Your task to perform on an android device: toggle notification dots Image 0: 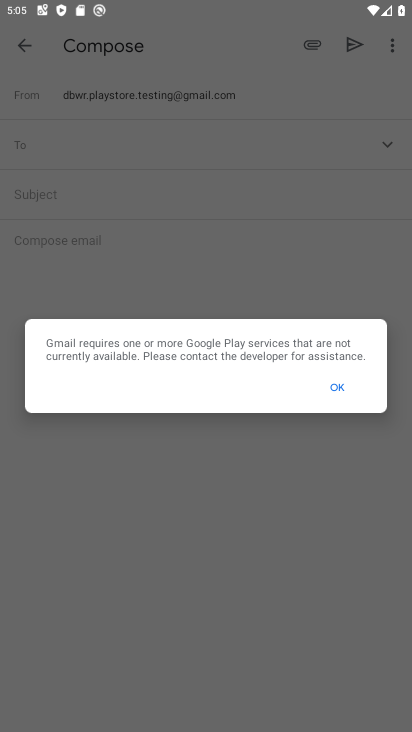
Step 0: press home button
Your task to perform on an android device: toggle notification dots Image 1: 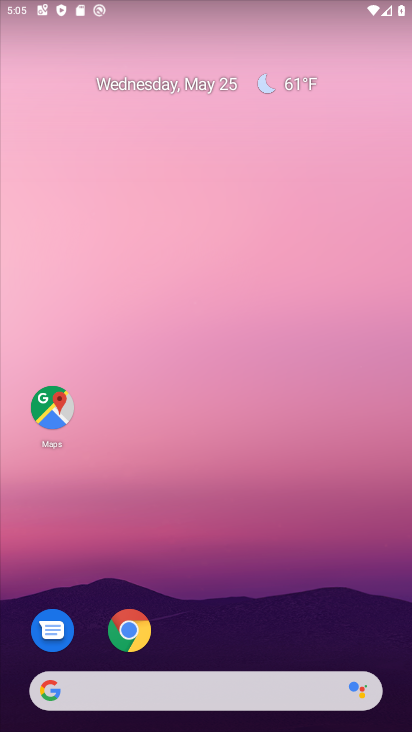
Step 1: drag from (235, 608) to (264, 37)
Your task to perform on an android device: toggle notification dots Image 2: 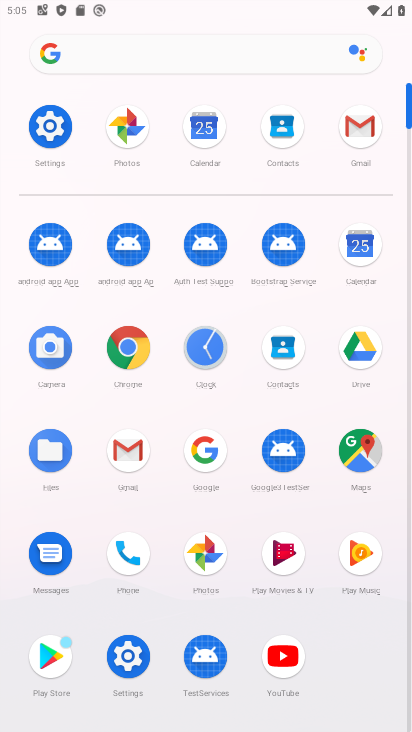
Step 2: click (54, 127)
Your task to perform on an android device: toggle notification dots Image 3: 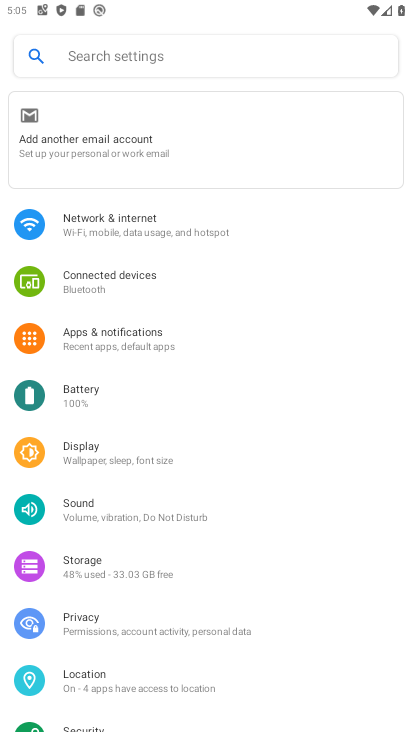
Step 3: click (118, 332)
Your task to perform on an android device: toggle notification dots Image 4: 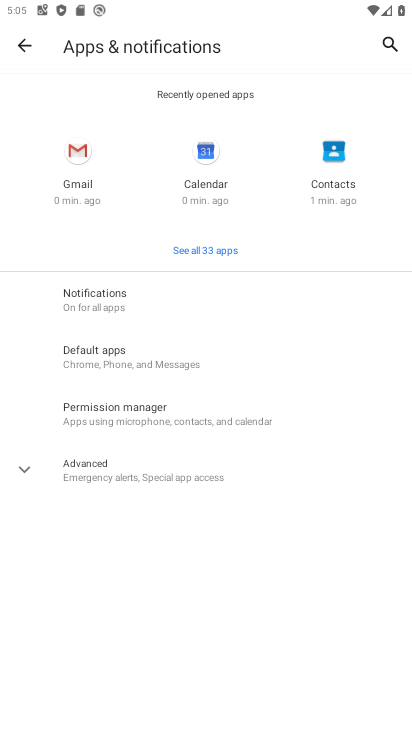
Step 4: click (111, 295)
Your task to perform on an android device: toggle notification dots Image 5: 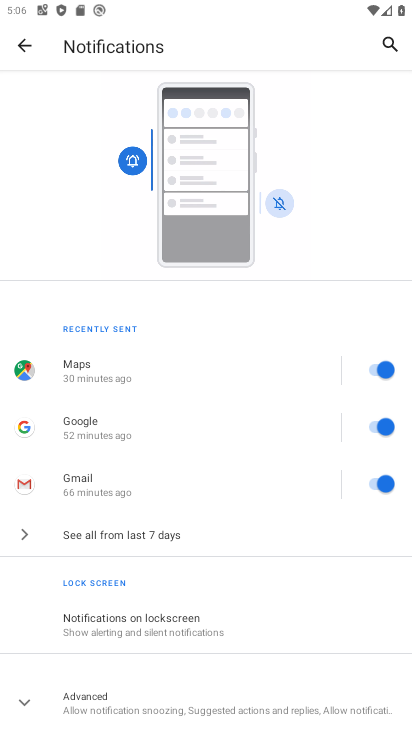
Step 5: drag from (126, 594) to (224, 132)
Your task to perform on an android device: toggle notification dots Image 6: 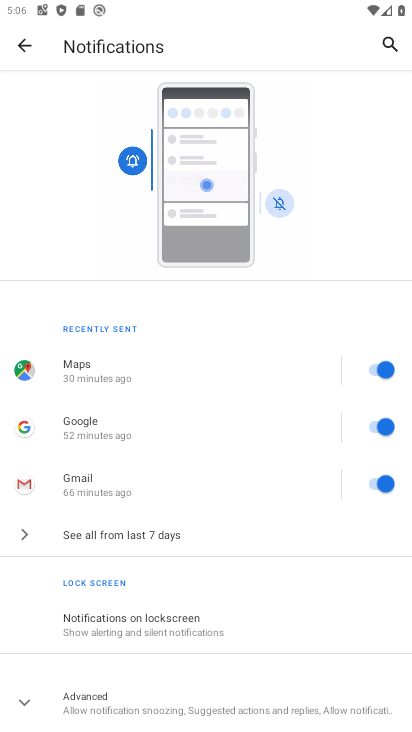
Step 6: click (133, 692)
Your task to perform on an android device: toggle notification dots Image 7: 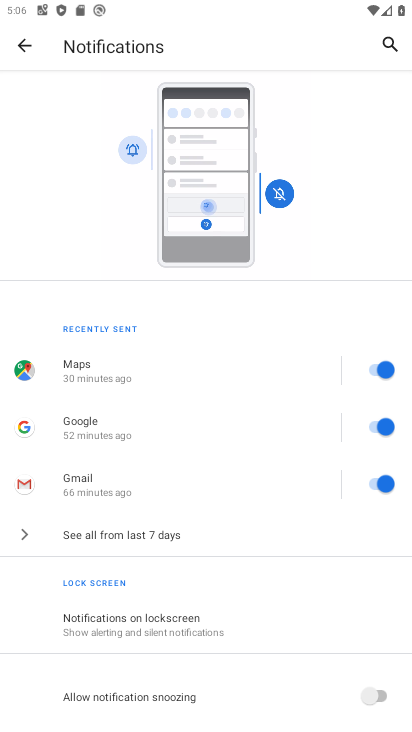
Step 7: drag from (191, 632) to (223, 124)
Your task to perform on an android device: toggle notification dots Image 8: 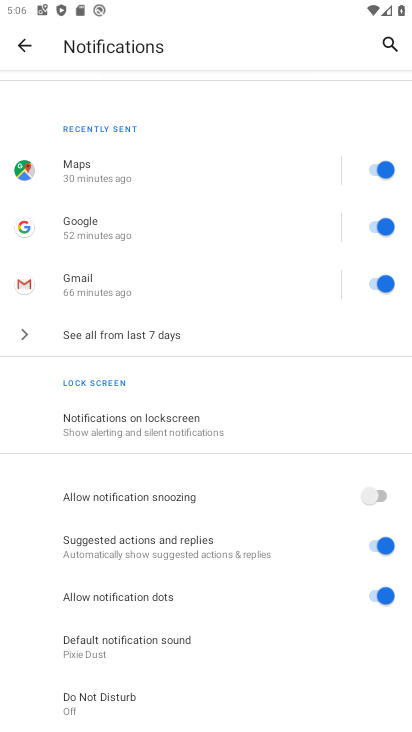
Step 8: click (382, 592)
Your task to perform on an android device: toggle notification dots Image 9: 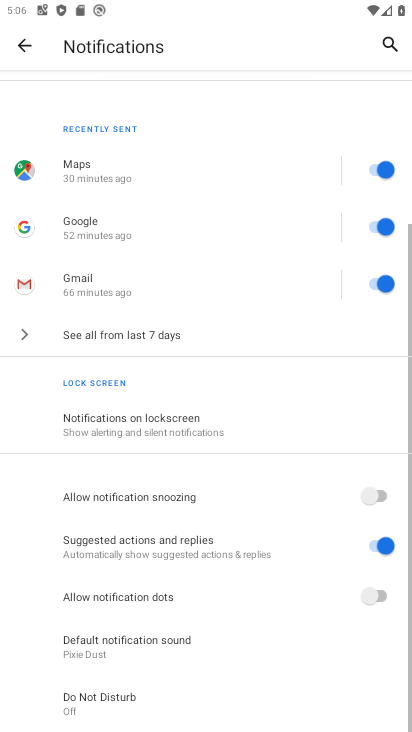
Step 9: task complete